Your task to perform on an android device: Open Android settings Image 0: 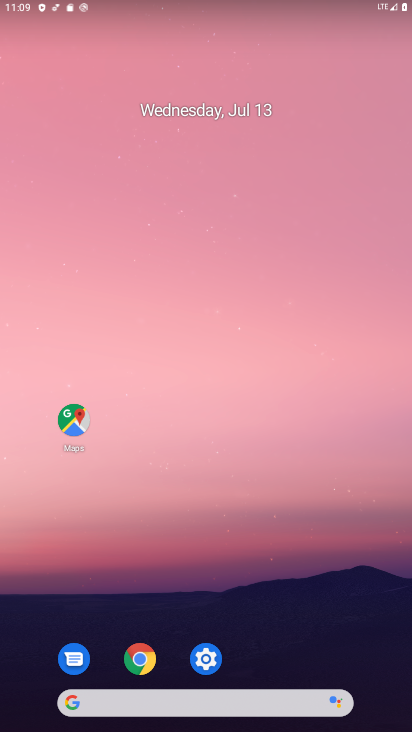
Step 0: drag from (279, 653) to (180, 101)
Your task to perform on an android device: Open Android settings Image 1: 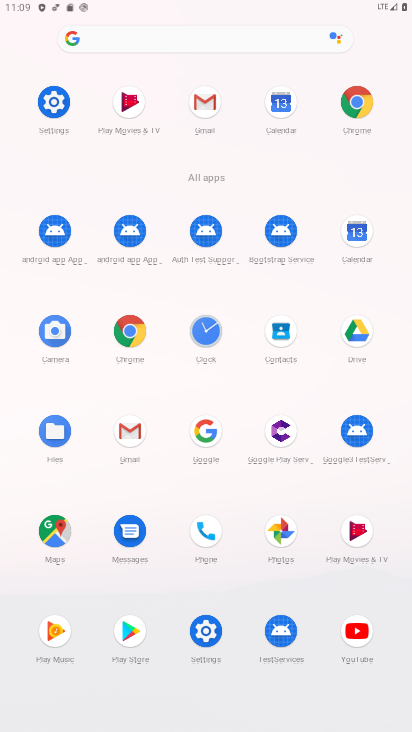
Step 1: click (204, 625)
Your task to perform on an android device: Open Android settings Image 2: 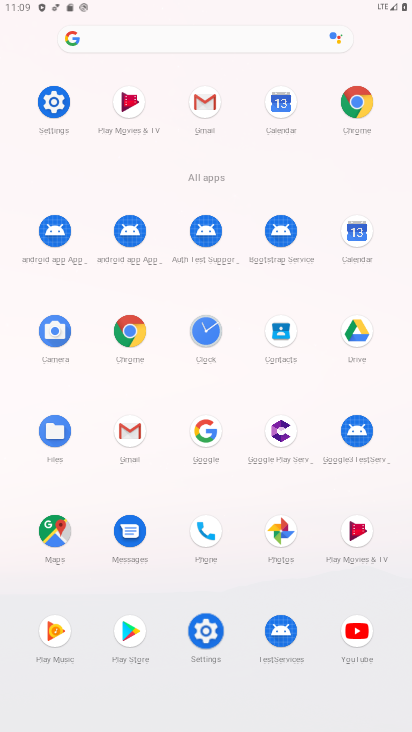
Step 2: click (204, 624)
Your task to perform on an android device: Open Android settings Image 3: 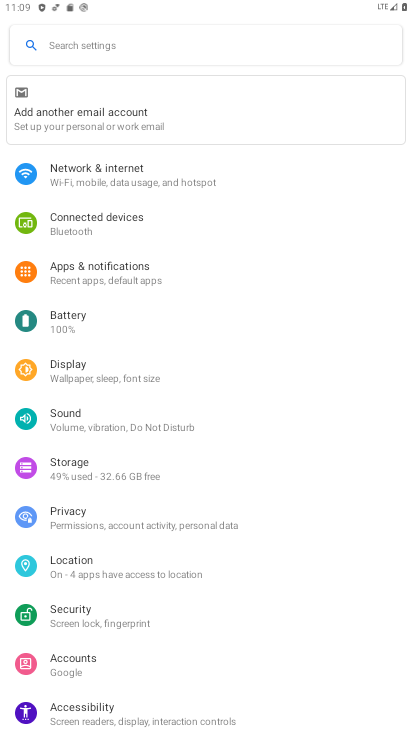
Step 3: drag from (106, 686) to (97, 145)
Your task to perform on an android device: Open Android settings Image 4: 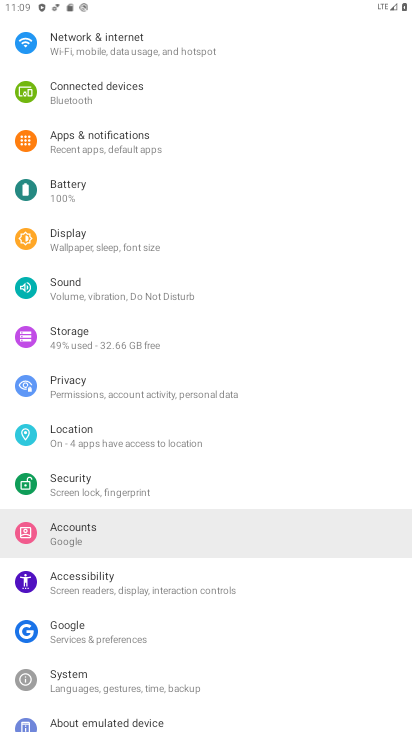
Step 4: drag from (168, 502) to (158, 224)
Your task to perform on an android device: Open Android settings Image 5: 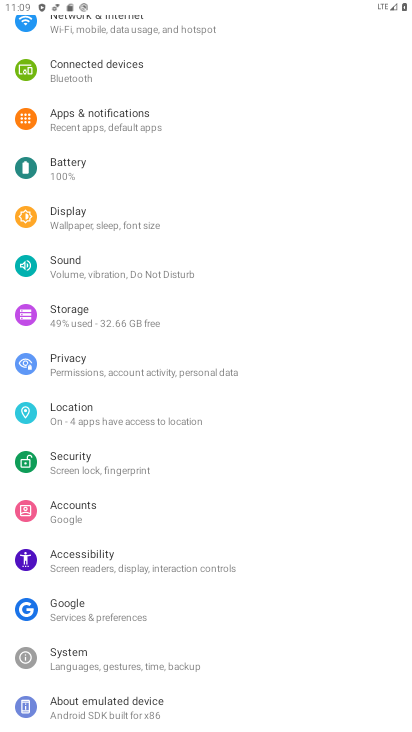
Step 5: click (91, 704)
Your task to perform on an android device: Open Android settings Image 6: 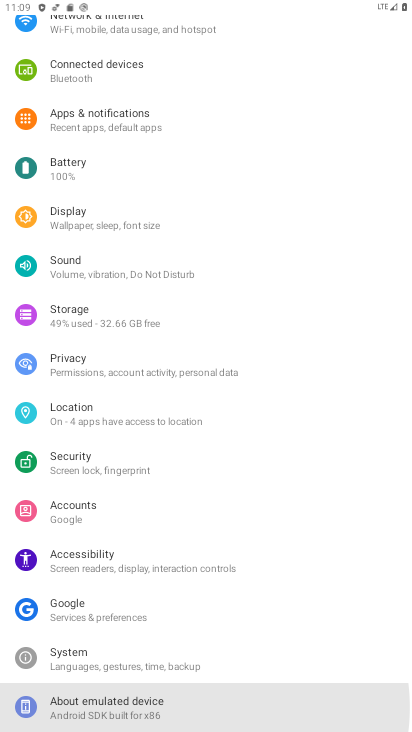
Step 6: click (91, 704)
Your task to perform on an android device: Open Android settings Image 7: 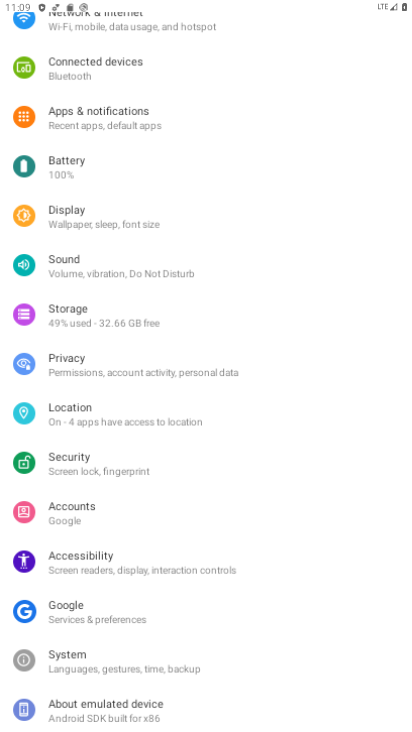
Step 7: click (93, 703)
Your task to perform on an android device: Open Android settings Image 8: 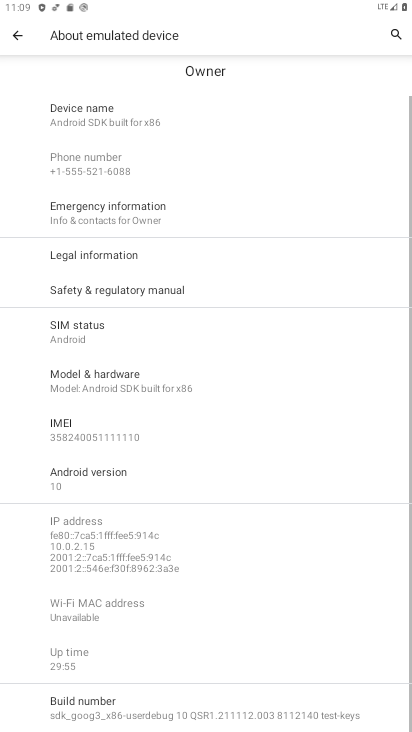
Step 8: task complete